Your task to perform on an android device: turn off notifications in google photos Image 0: 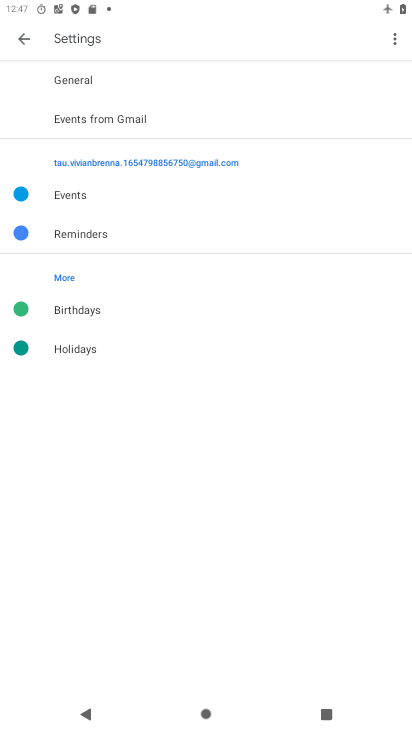
Step 0: press home button
Your task to perform on an android device: turn off notifications in google photos Image 1: 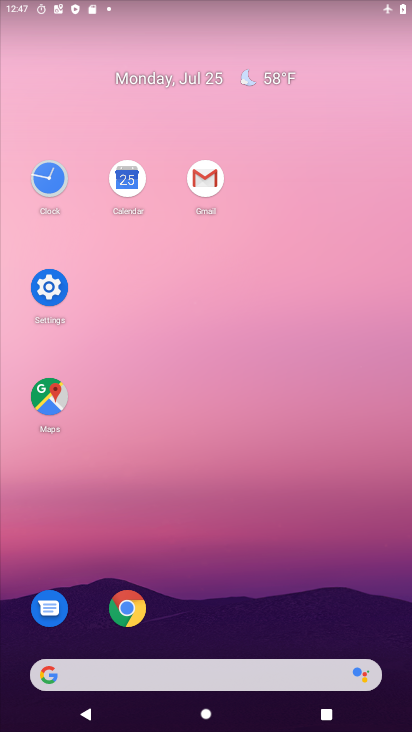
Step 1: drag from (230, 602) to (325, 93)
Your task to perform on an android device: turn off notifications in google photos Image 2: 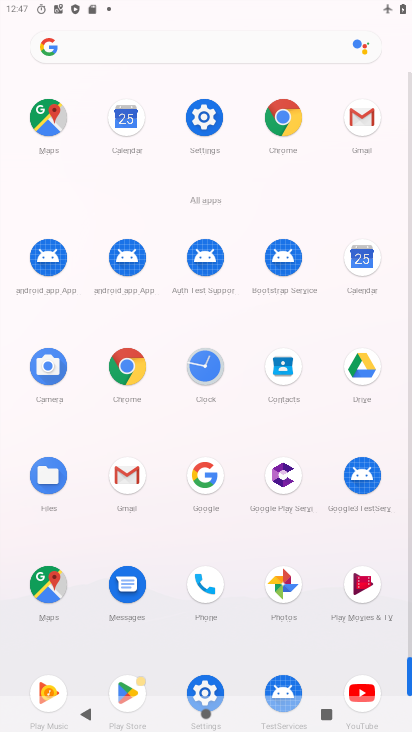
Step 2: click (287, 575)
Your task to perform on an android device: turn off notifications in google photos Image 3: 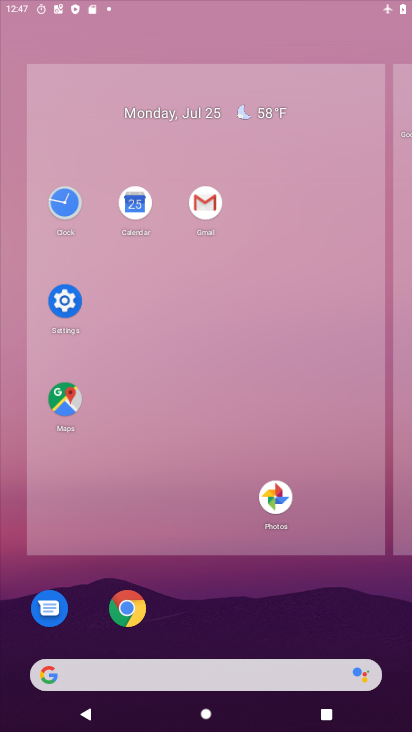
Step 3: drag from (299, 566) to (247, 457)
Your task to perform on an android device: turn off notifications in google photos Image 4: 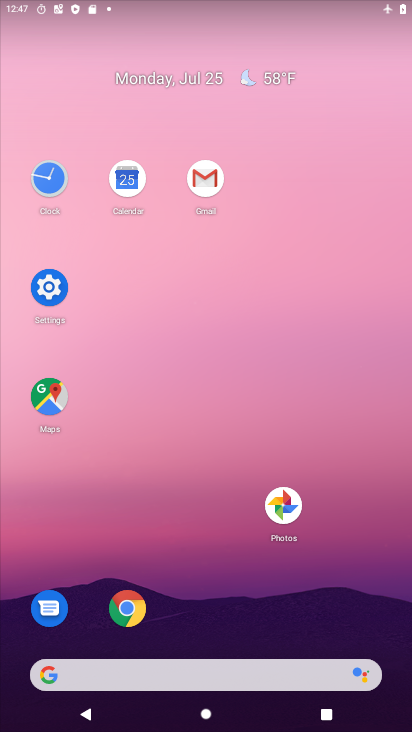
Step 4: click (289, 502)
Your task to perform on an android device: turn off notifications in google photos Image 5: 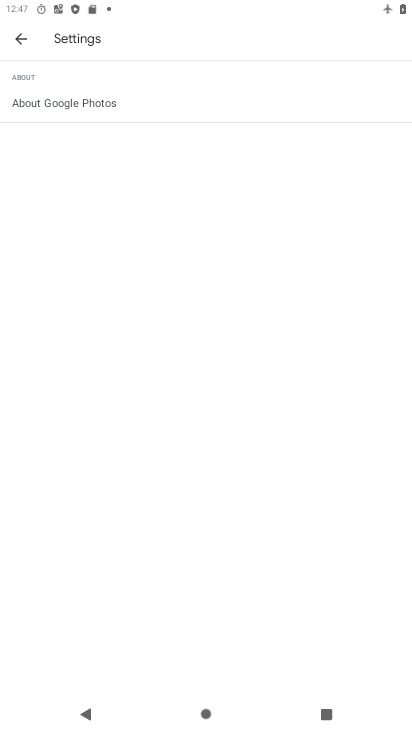
Step 5: click (25, 44)
Your task to perform on an android device: turn off notifications in google photos Image 6: 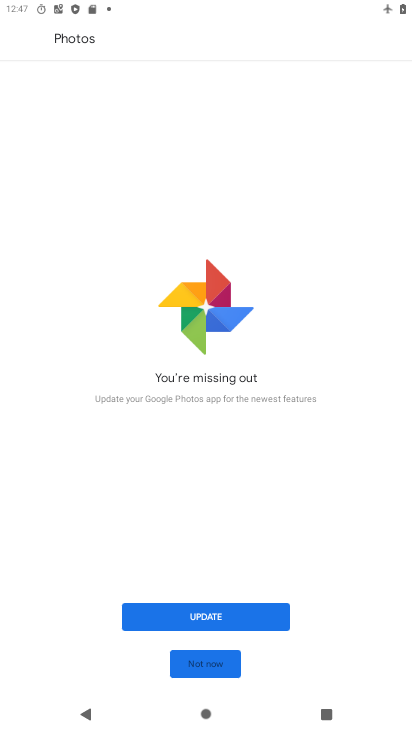
Step 6: click (257, 622)
Your task to perform on an android device: turn off notifications in google photos Image 7: 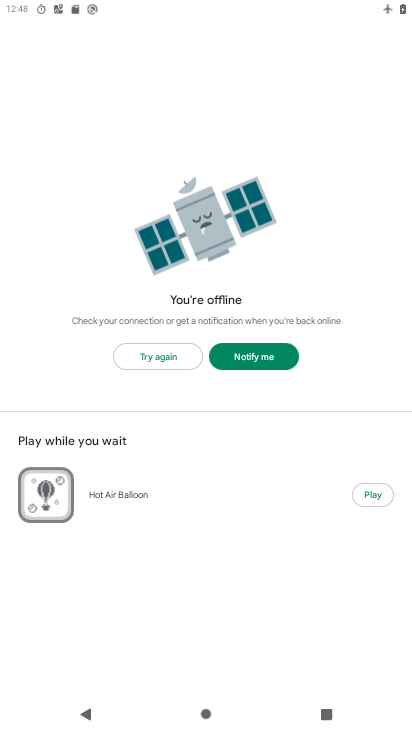
Step 7: task complete